Your task to perform on an android device: What's on my calendar today? Image 0: 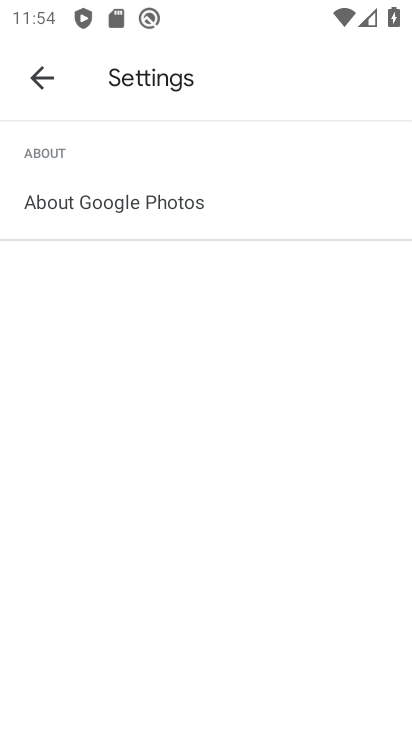
Step 0: press home button
Your task to perform on an android device: What's on my calendar today? Image 1: 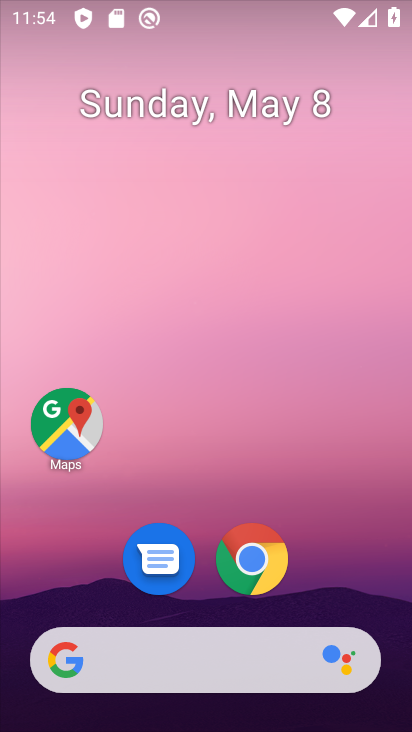
Step 1: drag from (304, 519) to (306, 39)
Your task to perform on an android device: What's on my calendar today? Image 2: 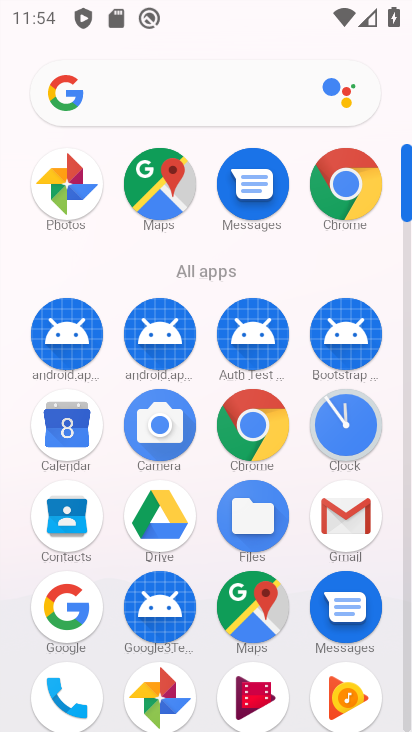
Step 2: click (78, 426)
Your task to perform on an android device: What's on my calendar today? Image 3: 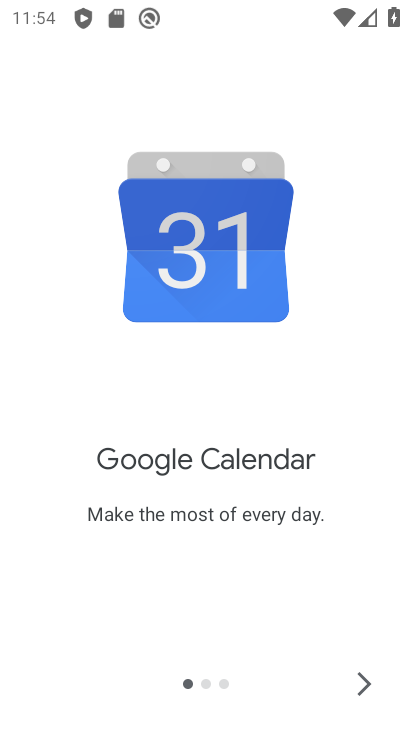
Step 3: click (356, 675)
Your task to perform on an android device: What's on my calendar today? Image 4: 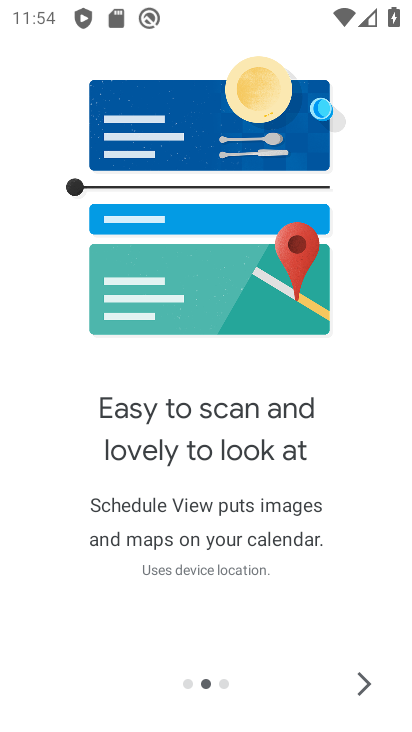
Step 4: click (356, 675)
Your task to perform on an android device: What's on my calendar today? Image 5: 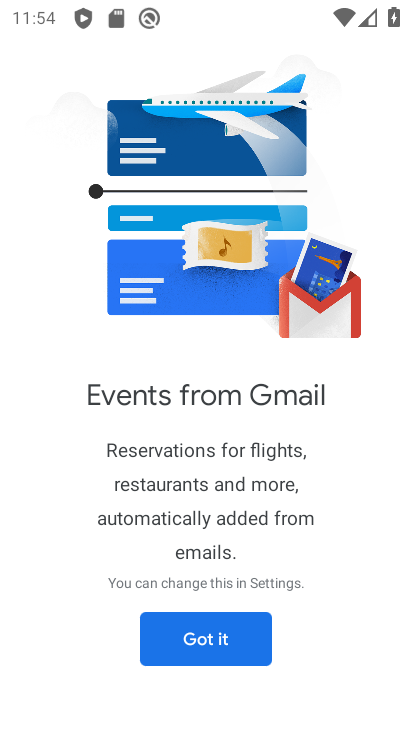
Step 5: click (218, 653)
Your task to perform on an android device: What's on my calendar today? Image 6: 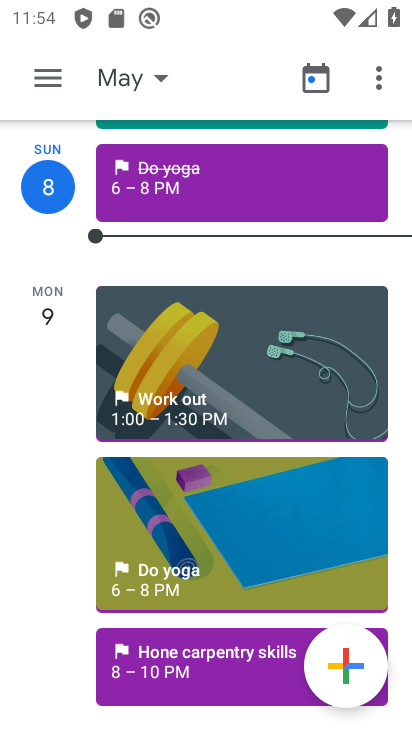
Step 6: click (135, 78)
Your task to perform on an android device: What's on my calendar today? Image 7: 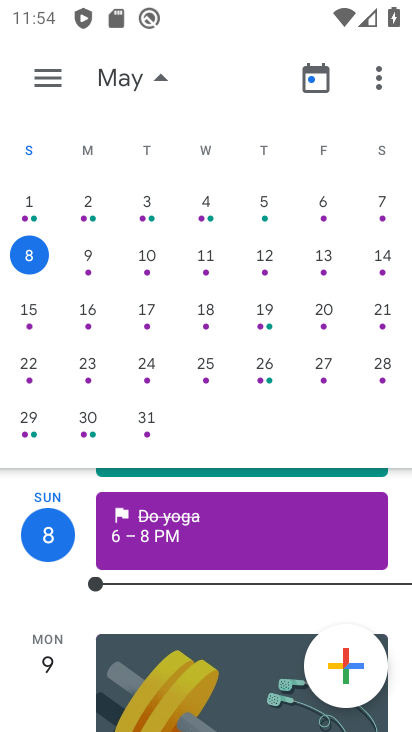
Step 7: click (90, 255)
Your task to perform on an android device: What's on my calendar today? Image 8: 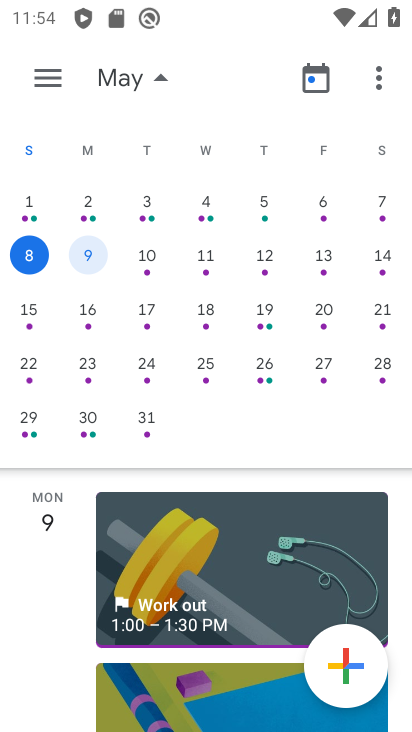
Step 8: click (157, 71)
Your task to perform on an android device: What's on my calendar today? Image 9: 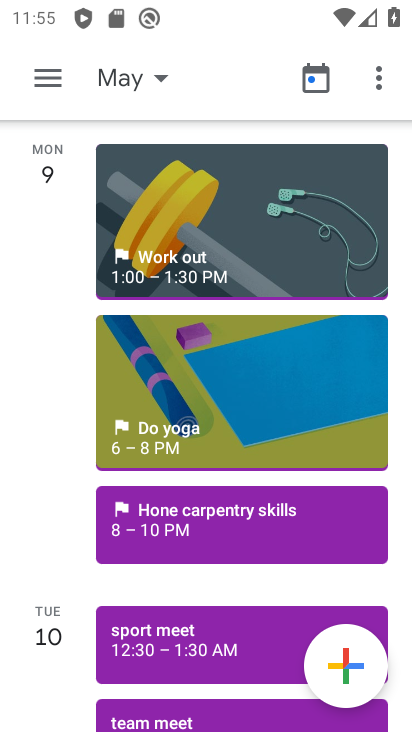
Step 9: task complete